Your task to perform on an android device: change the upload size in google photos Image 0: 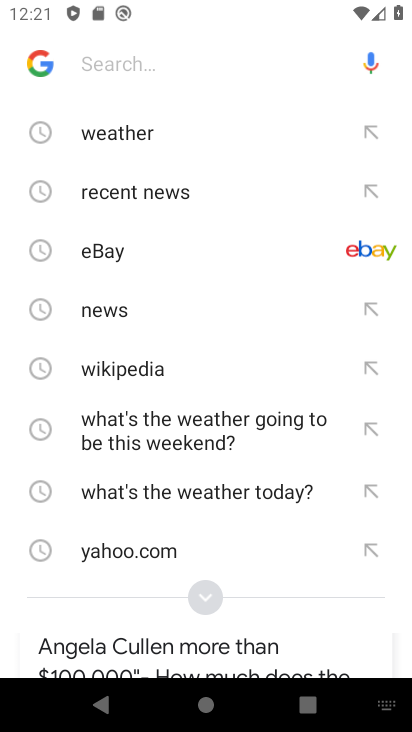
Step 0: press home button
Your task to perform on an android device: change the upload size in google photos Image 1: 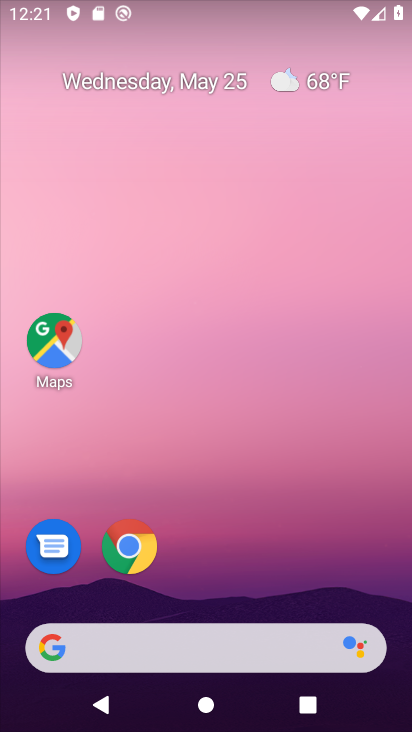
Step 1: drag from (272, 540) to (272, 128)
Your task to perform on an android device: change the upload size in google photos Image 2: 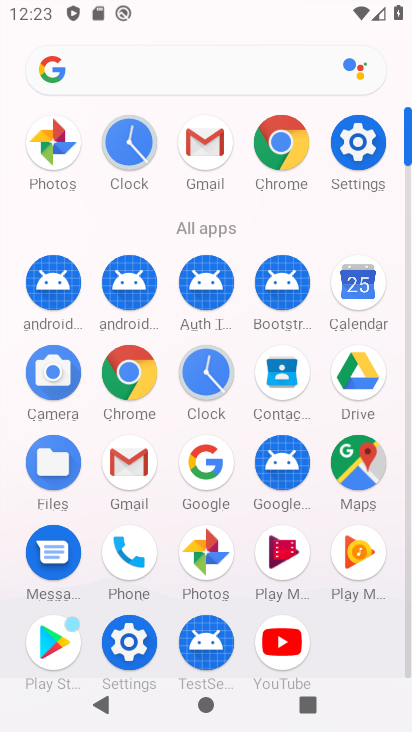
Step 2: click (224, 558)
Your task to perform on an android device: change the upload size in google photos Image 3: 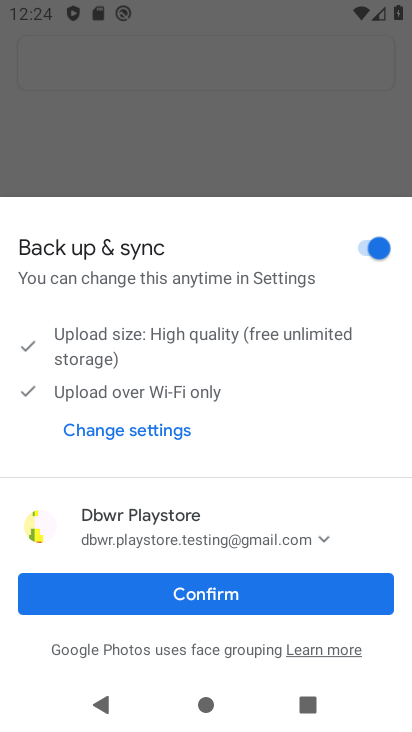
Step 3: click (312, 601)
Your task to perform on an android device: change the upload size in google photos Image 4: 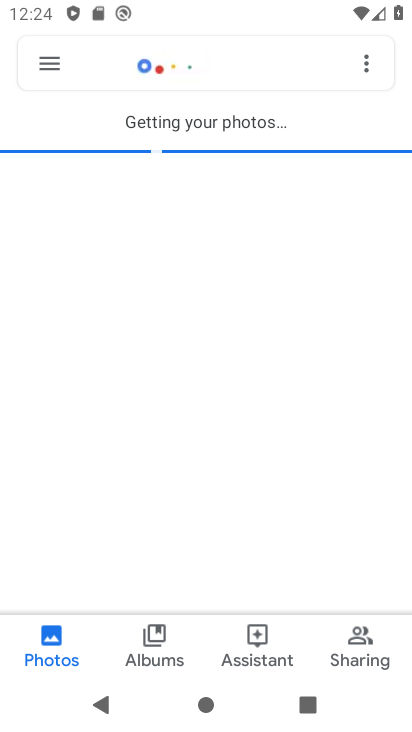
Step 4: task complete